Your task to perform on an android device: open app "The Home Depot" (install if not already installed), go to login, and select forgot password Image 0: 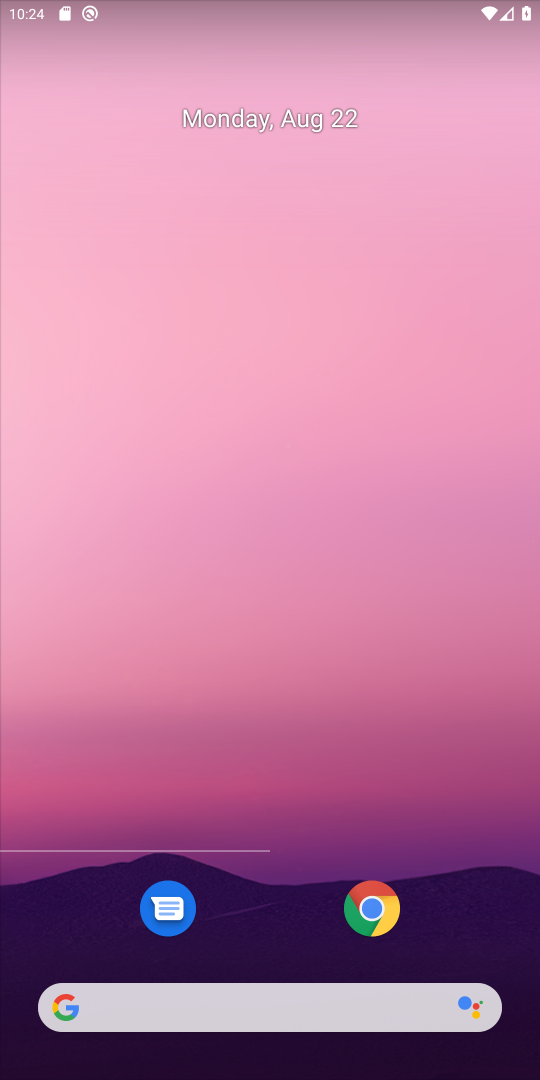
Step 0: click (438, 61)
Your task to perform on an android device: open app "The Home Depot" (install if not already installed), go to login, and select forgot password Image 1: 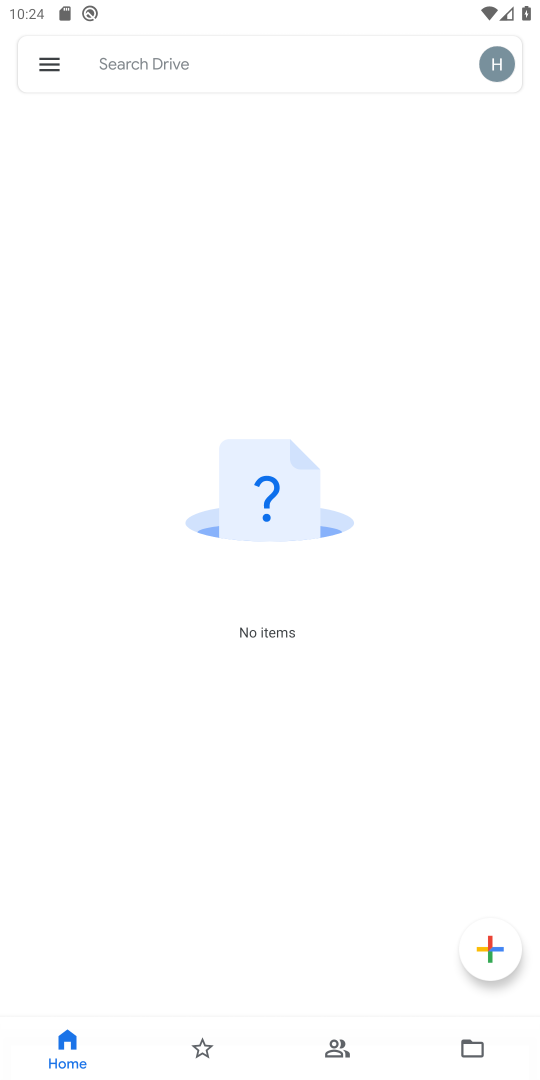
Step 1: press home button
Your task to perform on an android device: open app "The Home Depot" (install if not already installed), go to login, and select forgot password Image 2: 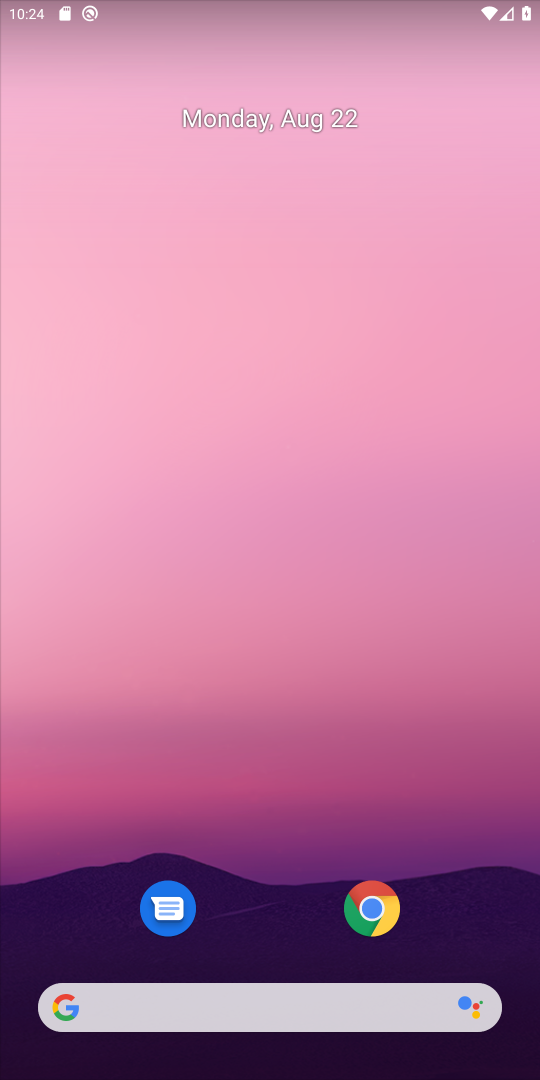
Step 2: drag from (263, 964) to (287, 222)
Your task to perform on an android device: open app "The Home Depot" (install if not already installed), go to login, and select forgot password Image 3: 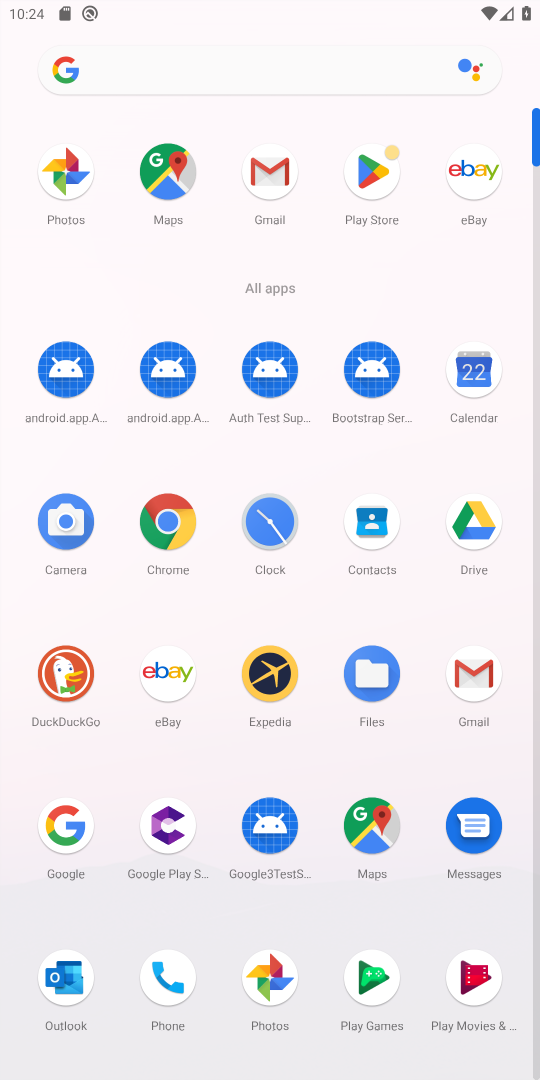
Step 3: click (367, 172)
Your task to perform on an android device: open app "The Home Depot" (install if not already installed), go to login, and select forgot password Image 4: 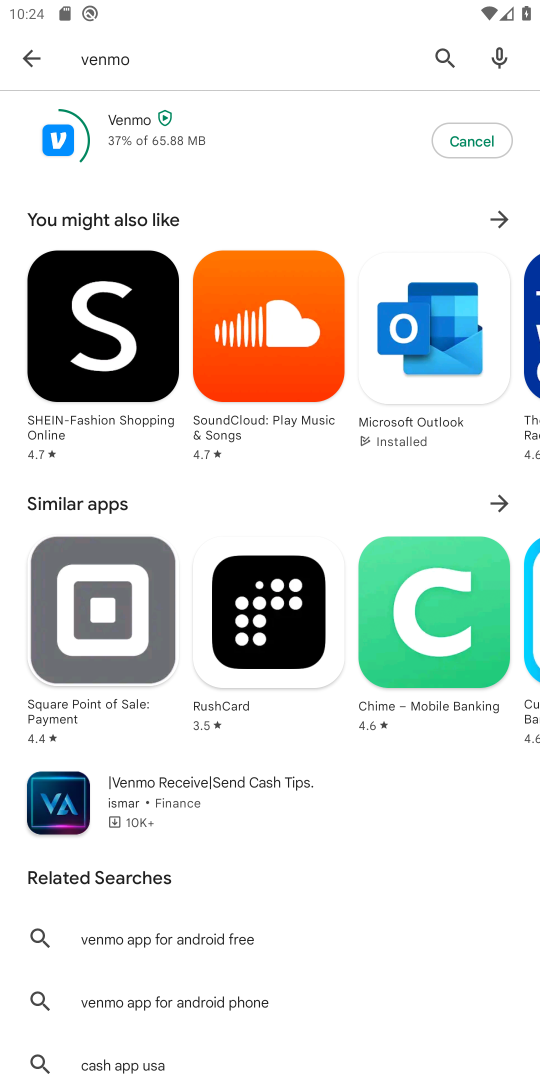
Step 4: click (431, 49)
Your task to perform on an android device: open app "The Home Depot" (install if not already installed), go to login, and select forgot password Image 5: 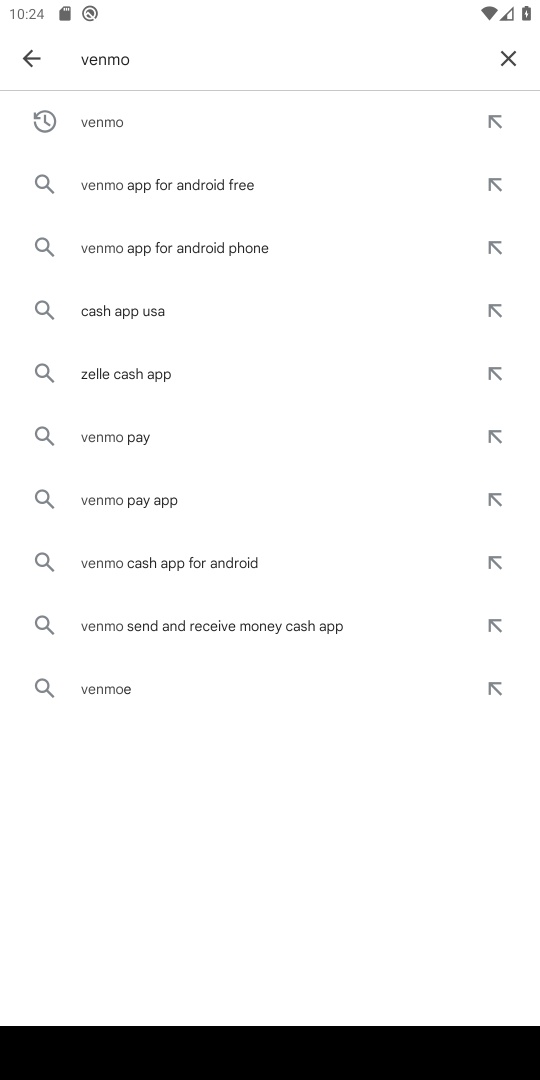
Step 5: click (510, 64)
Your task to perform on an android device: open app "The Home Depot" (install if not already installed), go to login, and select forgot password Image 6: 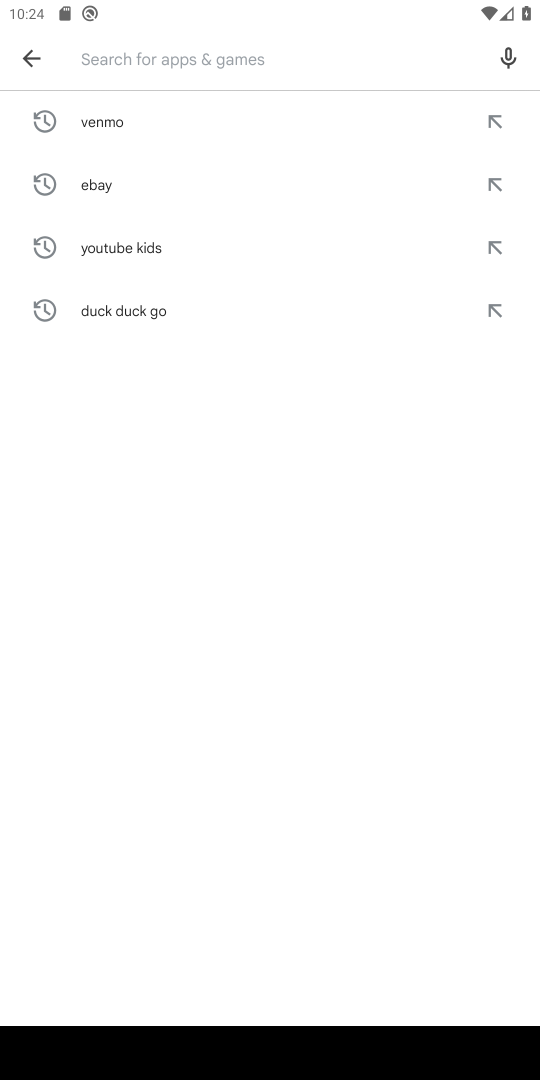
Step 6: type "the home depot"
Your task to perform on an android device: open app "The Home Depot" (install if not already installed), go to login, and select forgot password Image 7: 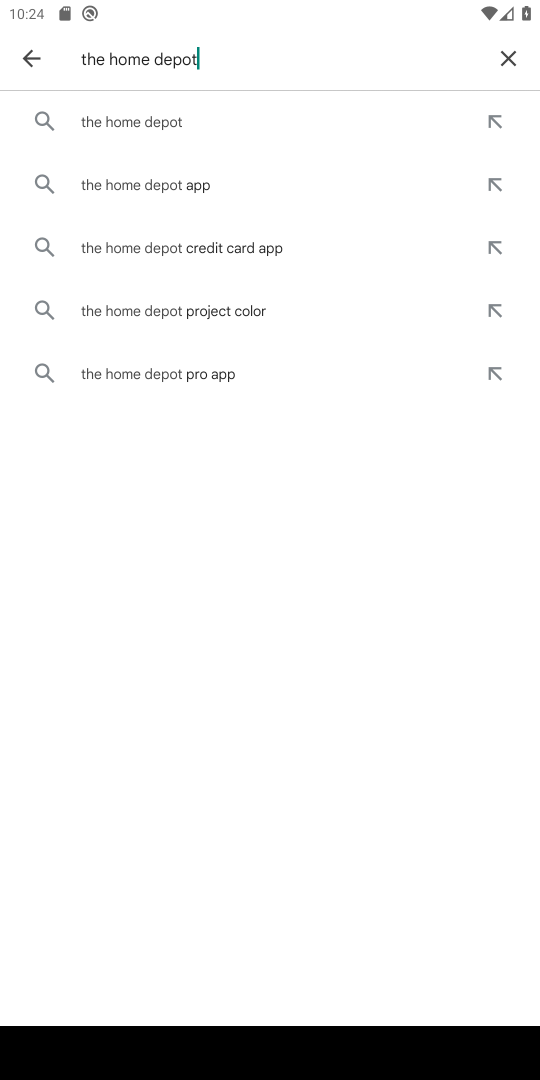
Step 7: click (241, 138)
Your task to perform on an android device: open app "The Home Depot" (install if not already installed), go to login, and select forgot password Image 8: 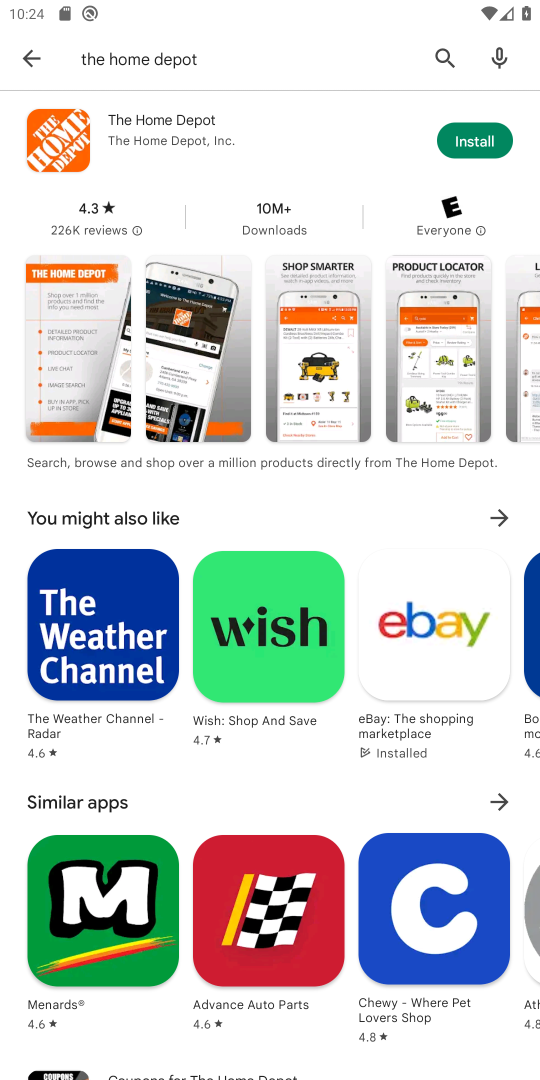
Step 8: click (477, 136)
Your task to perform on an android device: open app "The Home Depot" (install if not already installed), go to login, and select forgot password Image 9: 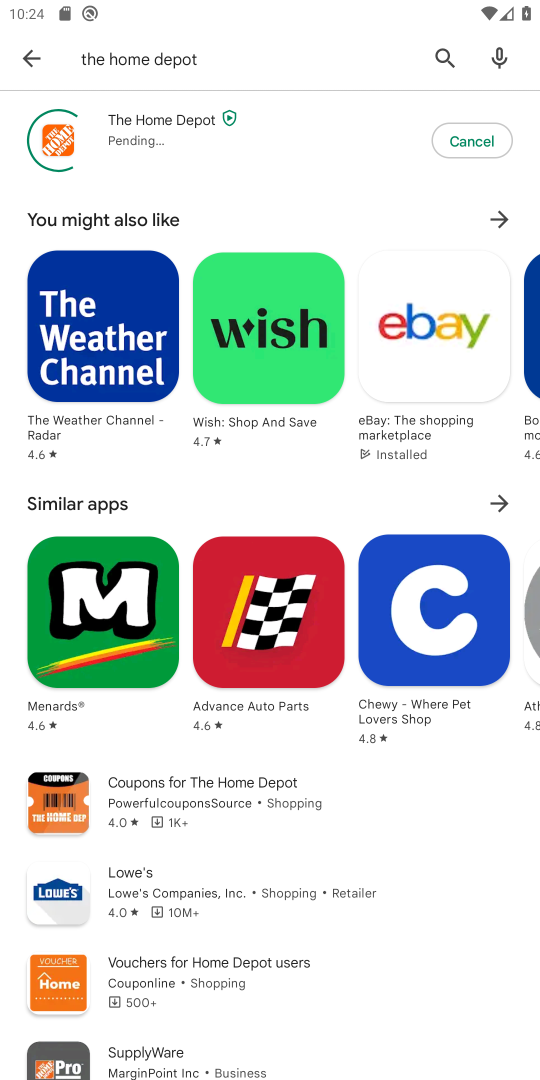
Step 9: task complete